Your task to perform on an android device: open app "HBO Max: Stream TV & Movies" Image 0: 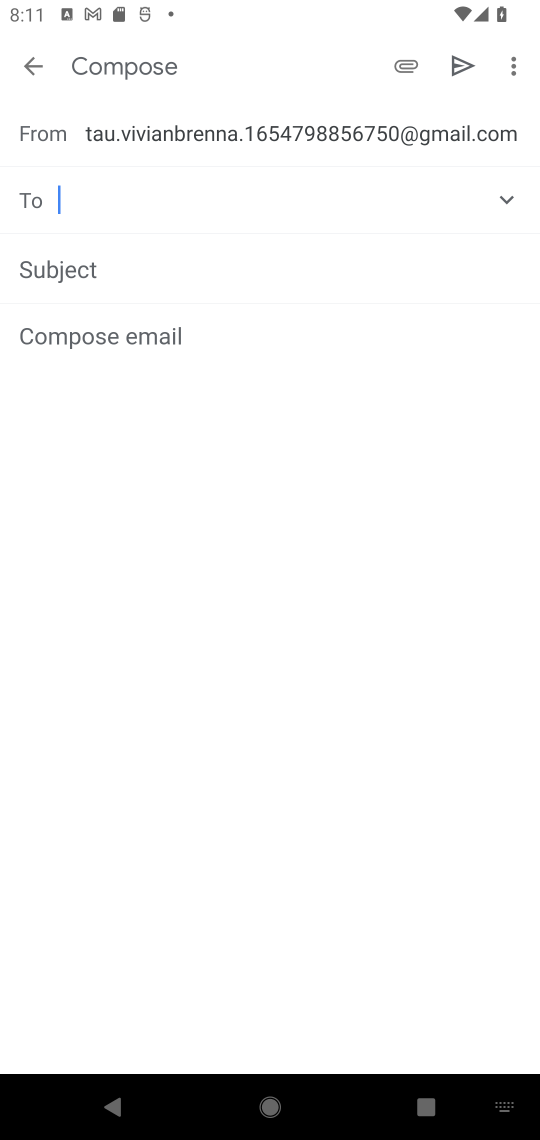
Step 0: press back button
Your task to perform on an android device: open app "HBO Max: Stream TV & Movies" Image 1: 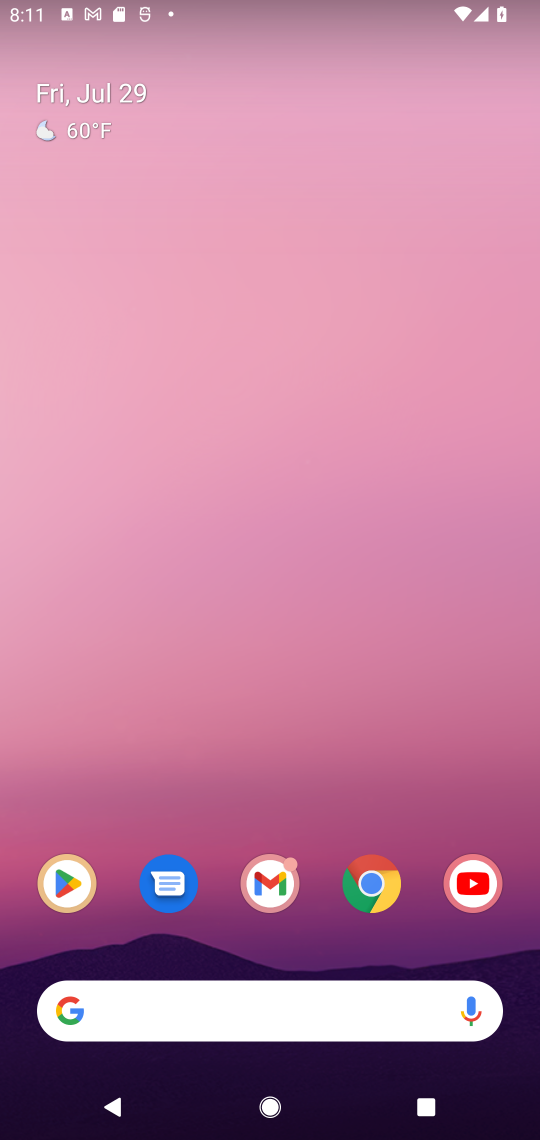
Step 1: press home button
Your task to perform on an android device: open app "HBO Max: Stream TV & Movies" Image 2: 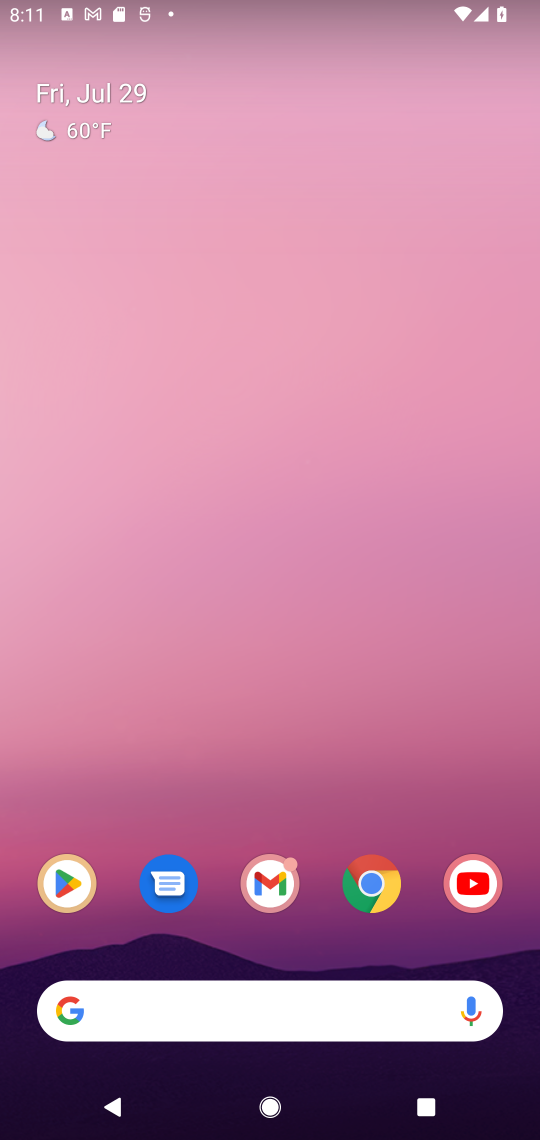
Step 2: click (70, 885)
Your task to perform on an android device: open app "HBO Max: Stream TV & Movies" Image 3: 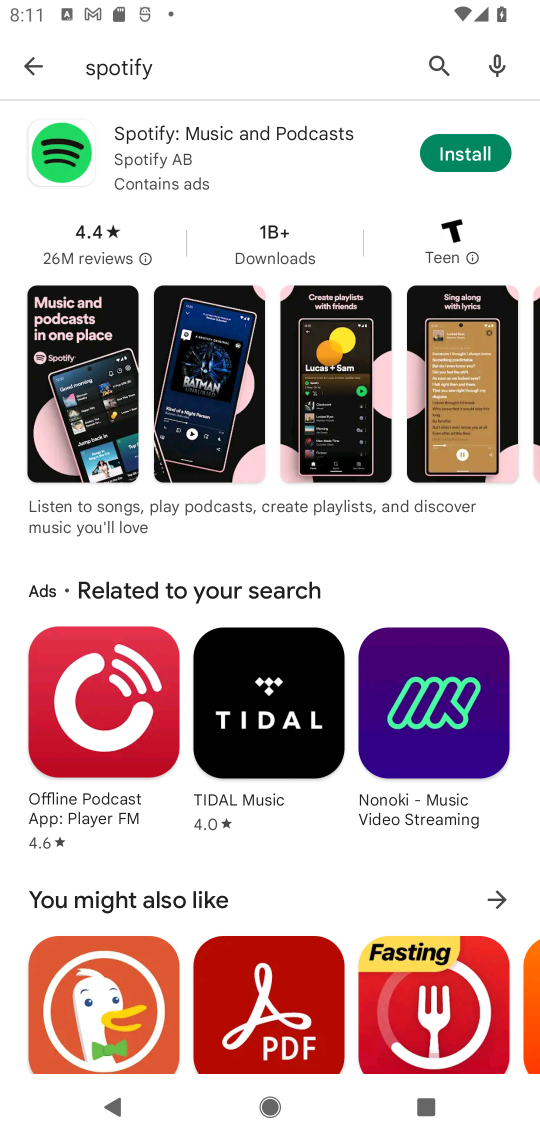
Step 3: click (452, 58)
Your task to perform on an android device: open app "HBO Max: Stream TV & Movies" Image 4: 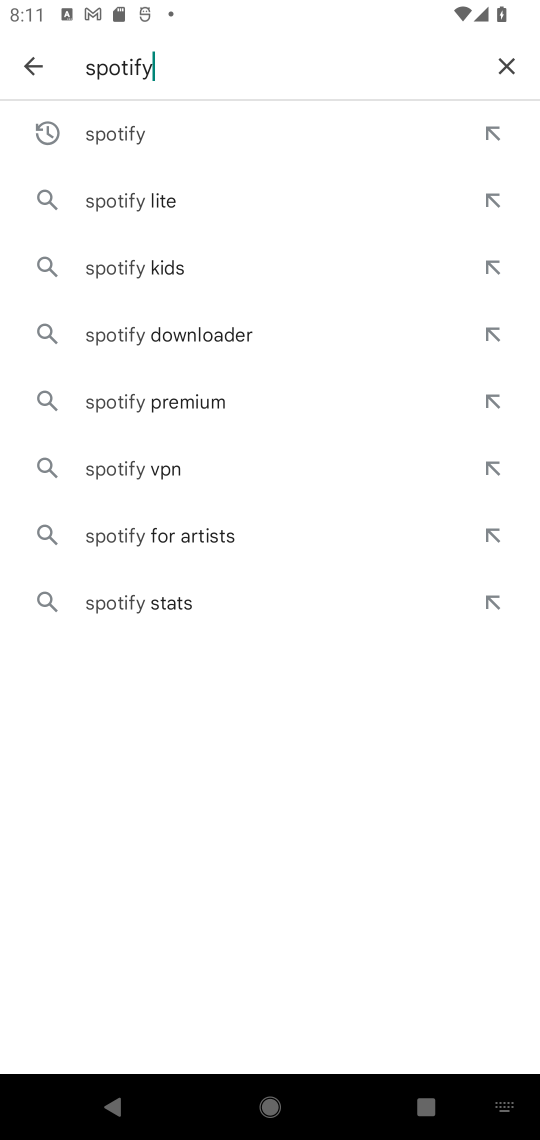
Step 4: click (518, 59)
Your task to perform on an android device: open app "HBO Max: Stream TV & Movies" Image 5: 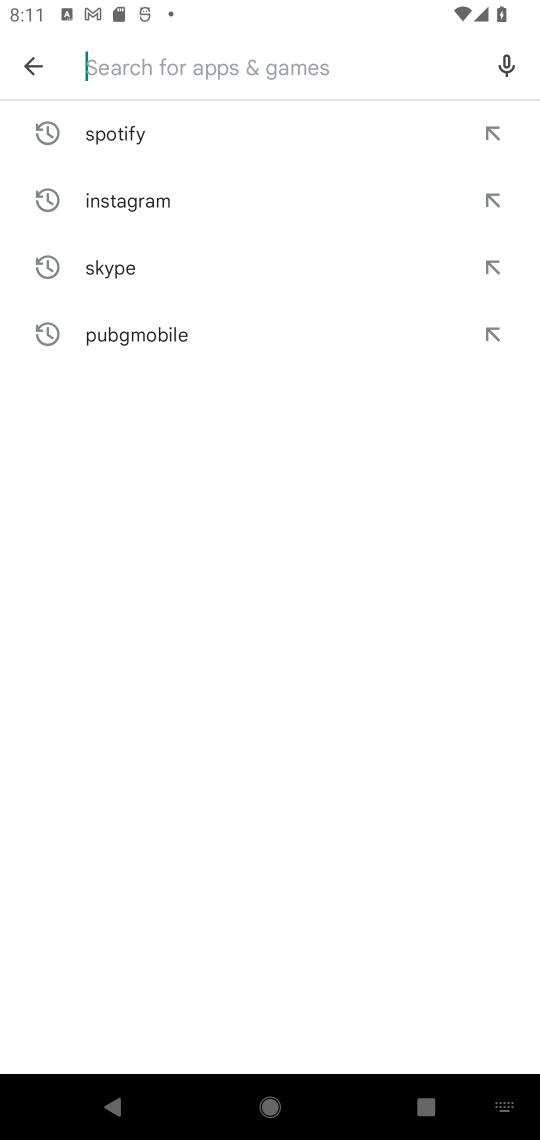
Step 5: type "hbo"
Your task to perform on an android device: open app "HBO Max: Stream TV & Movies" Image 6: 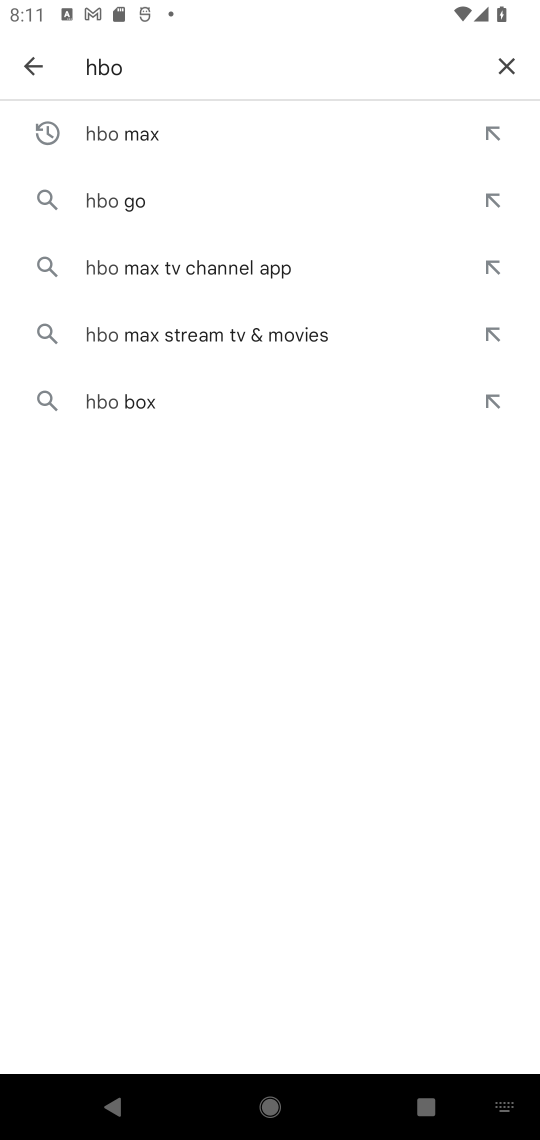
Step 6: click (182, 145)
Your task to perform on an android device: open app "HBO Max: Stream TV & Movies" Image 7: 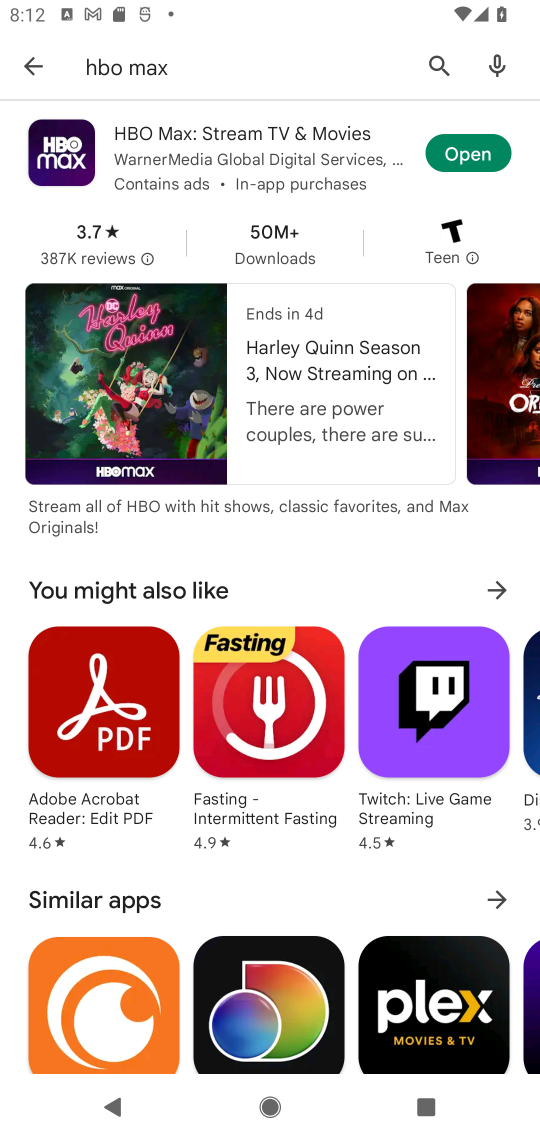
Step 7: click (481, 152)
Your task to perform on an android device: open app "HBO Max: Stream TV & Movies" Image 8: 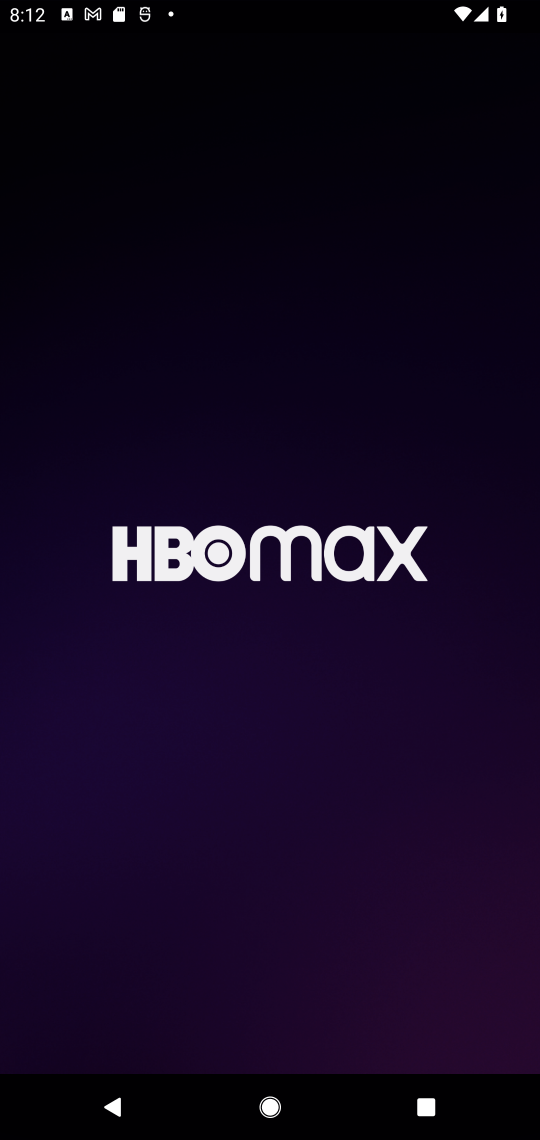
Step 8: task complete